Your task to perform on an android device: Turn on the flashlight Image 0: 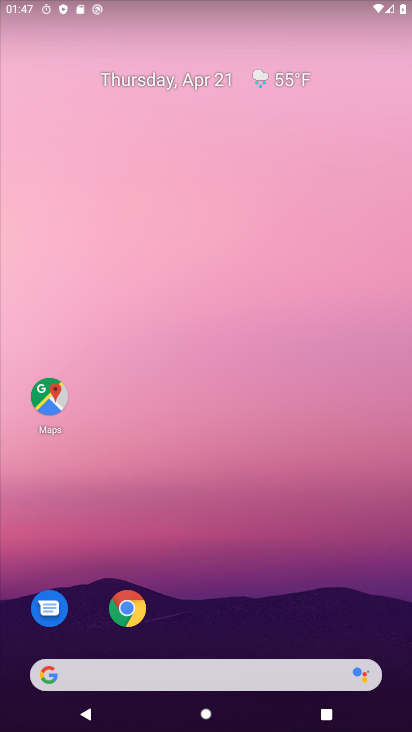
Step 0: drag from (187, 598) to (117, 173)
Your task to perform on an android device: Turn on the flashlight Image 1: 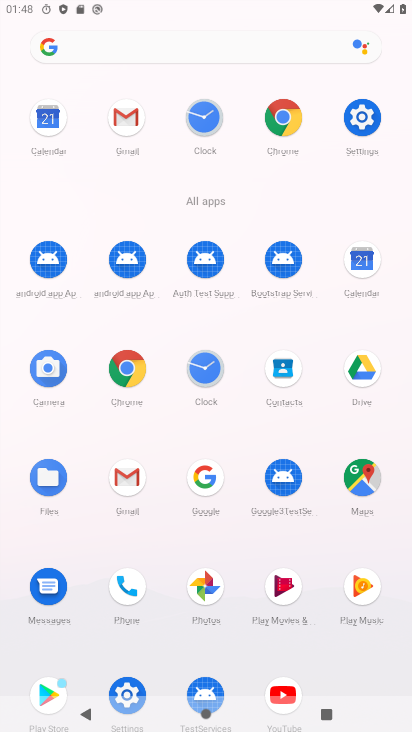
Step 1: click (358, 123)
Your task to perform on an android device: Turn on the flashlight Image 2: 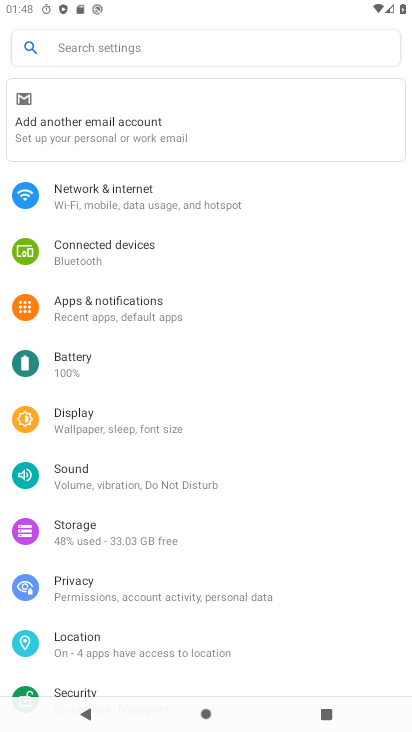
Step 2: click (144, 53)
Your task to perform on an android device: Turn on the flashlight Image 3: 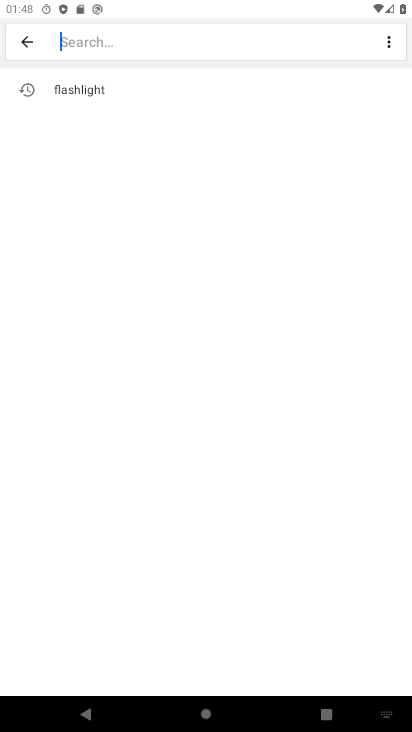
Step 3: click (69, 88)
Your task to perform on an android device: Turn on the flashlight Image 4: 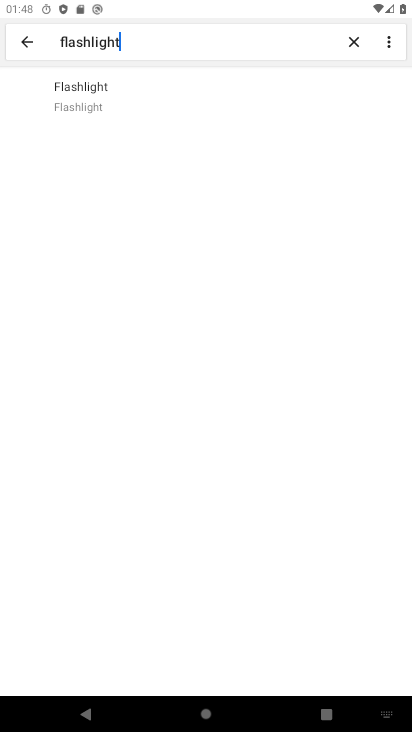
Step 4: click (69, 87)
Your task to perform on an android device: Turn on the flashlight Image 5: 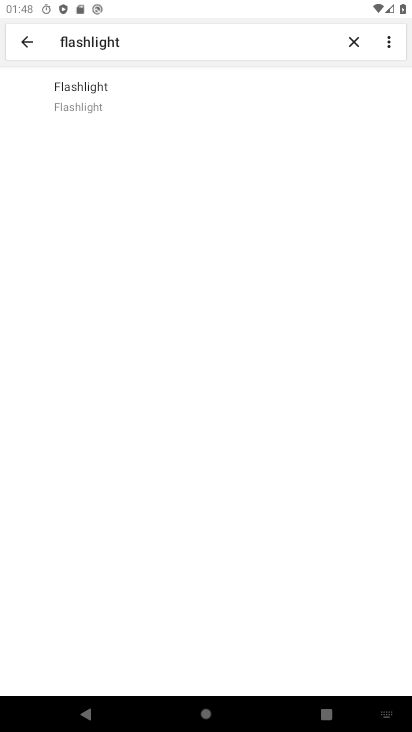
Step 5: task complete